Your task to perform on an android device: Show me recent news Image 0: 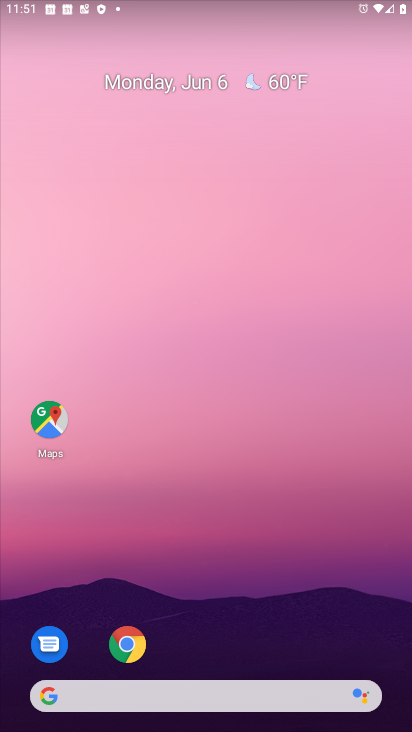
Step 0: click (297, 707)
Your task to perform on an android device: Show me recent news Image 1: 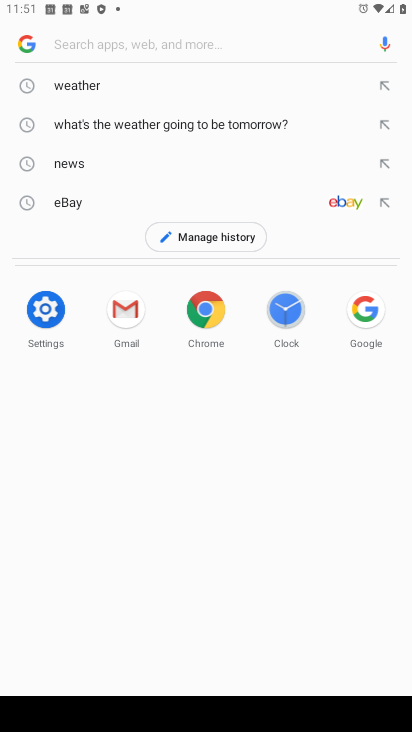
Step 1: click (92, 171)
Your task to perform on an android device: Show me recent news Image 2: 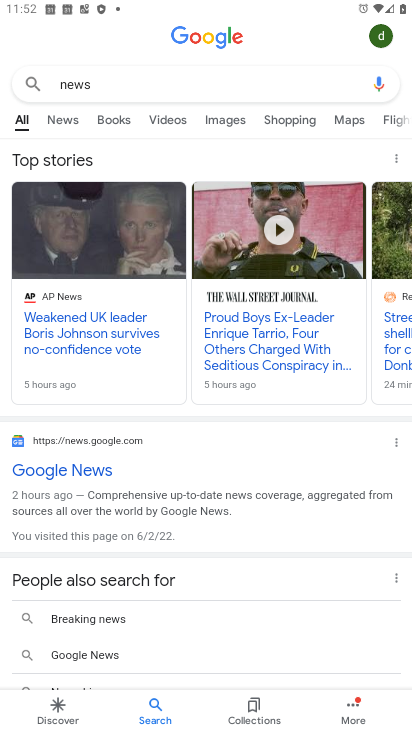
Step 2: task complete